Your task to perform on an android device: Open settings on Google Maps Image 0: 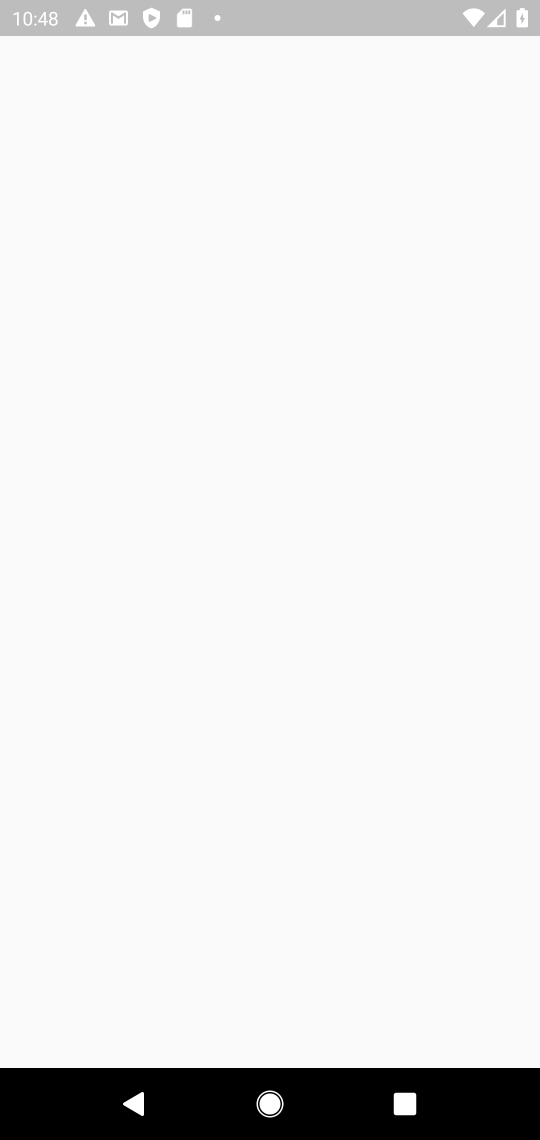
Step 0: press home button
Your task to perform on an android device: Open settings on Google Maps Image 1: 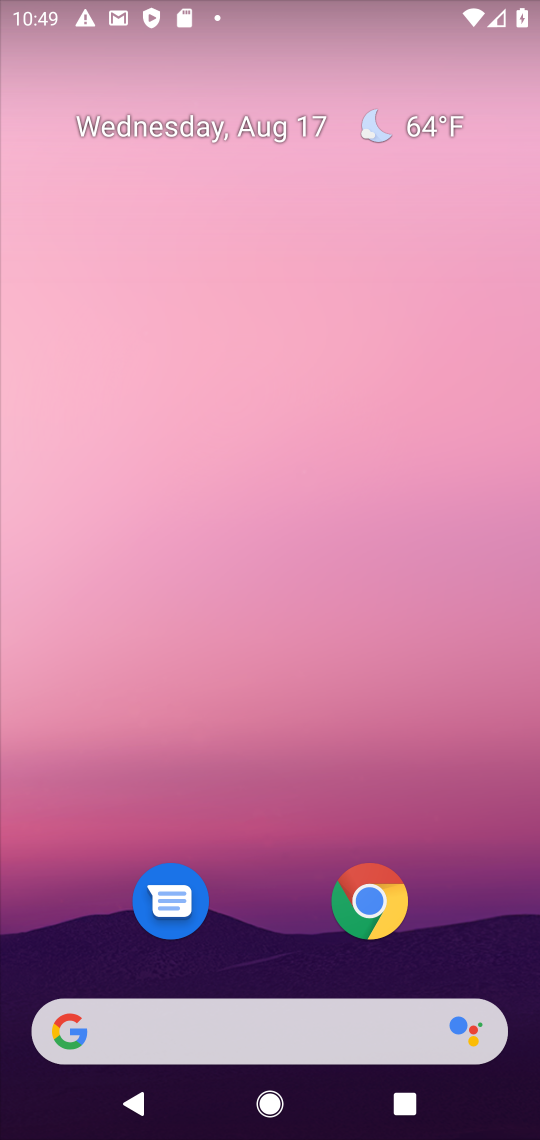
Step 1: drag from (268, 960) to (231, 119)
Your task to perform on an android device: Open settings on Google Maps Image 2: 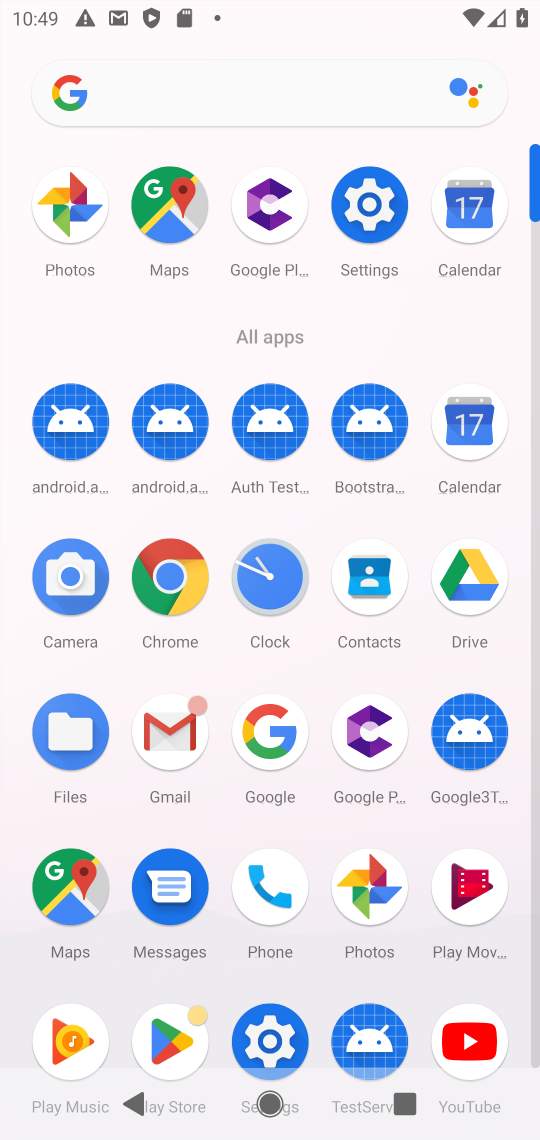
Step 2: click (171, 214)
Your task to perform on an android device: Open settings on Google Maps Image 3: 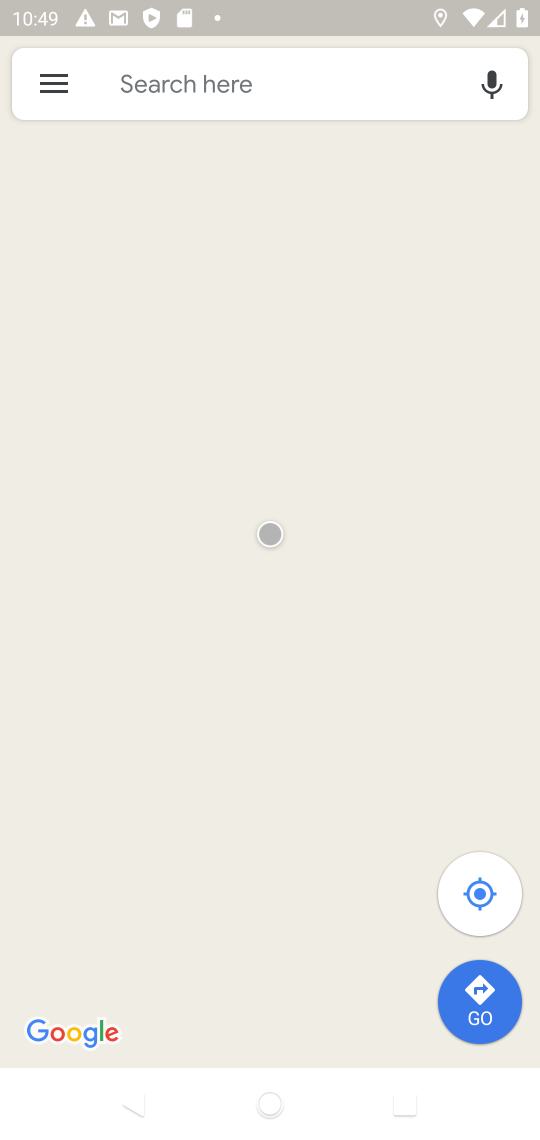
Step 3: click (54, 95)
Your task to perform on an android device: Open settings on Google Maps Image 4: 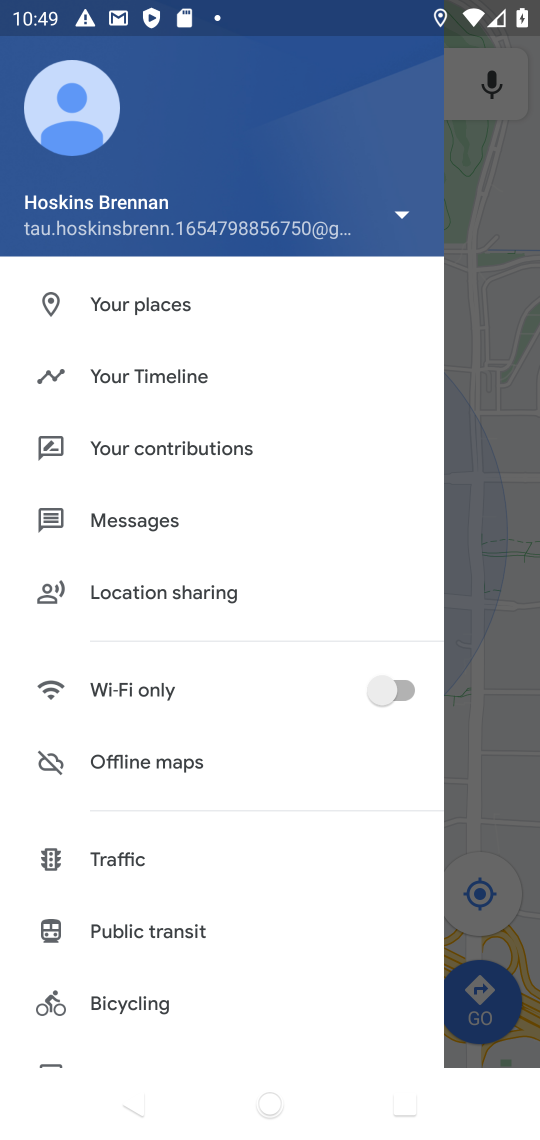
Step 4: drag from (235, 1005) to (237, 357)
Your task to perform on an android device: Open settings on Google Maps Image 5: 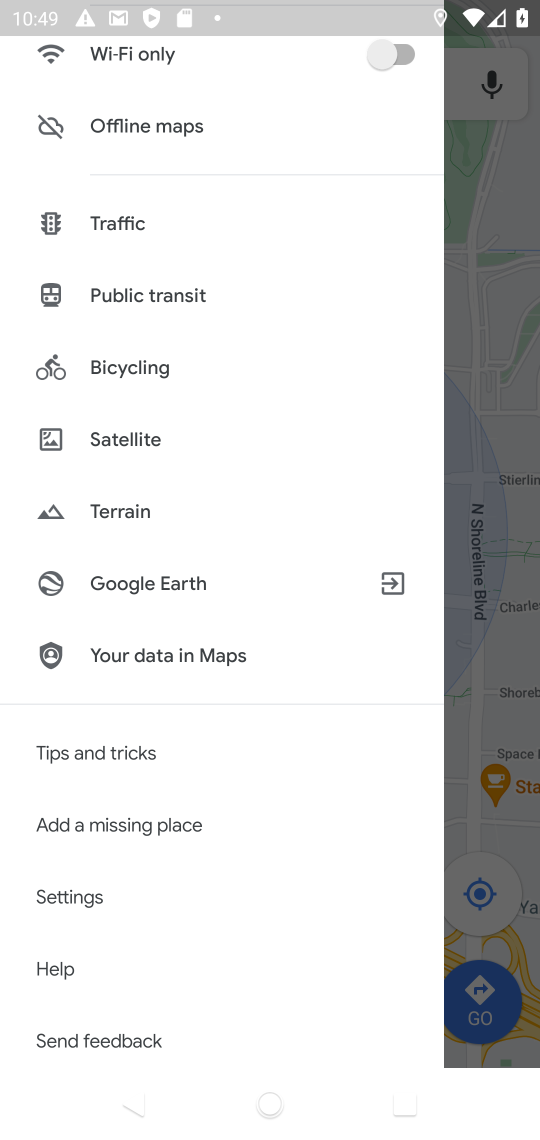
Step 5: click (74, 905)
Your task to perform on an android device: Open settings on Google Maps Image 6: 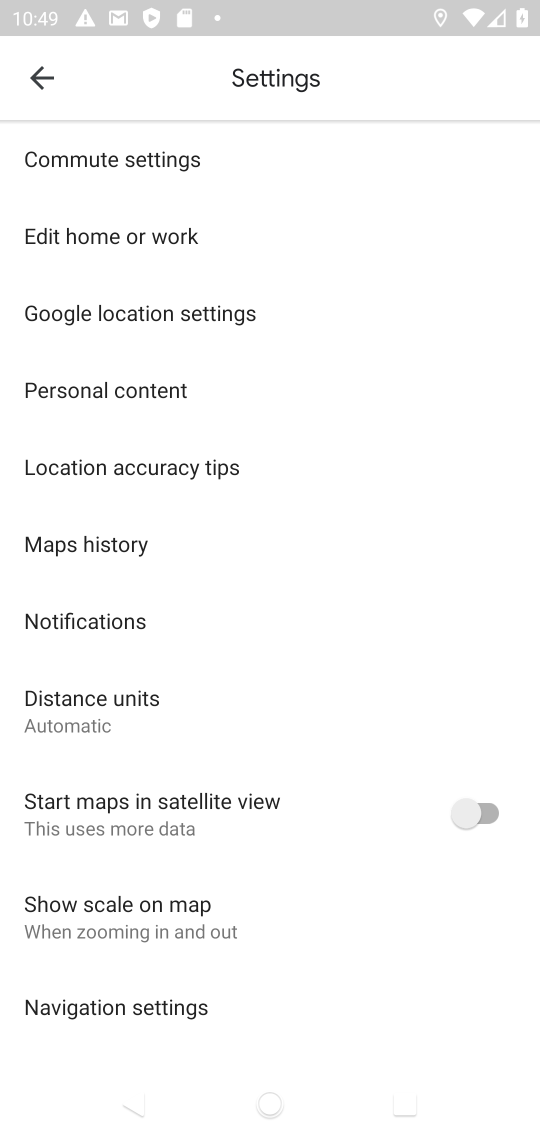
Step 6: task complete